Your task to perform on an android device: find photos in the google photos app Image 0: 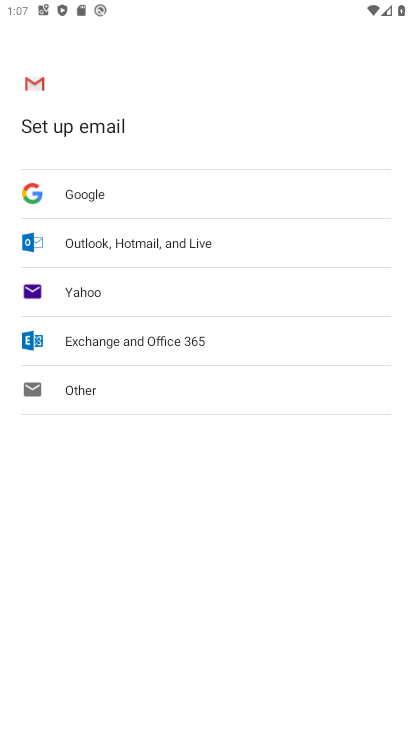
Step 0: press home button
Your task to perform on an android device: find photos in the google photos app Image 1: 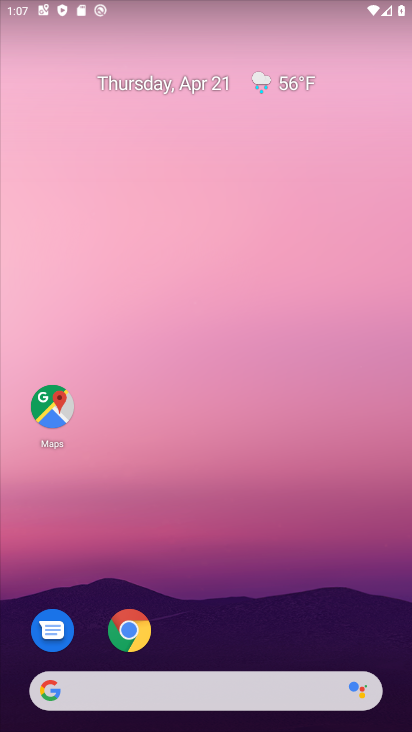
Step 1: drag from (299, 543) to (237, 121)
Your task to perform on an android device: find photos in the google photos app Image 2: 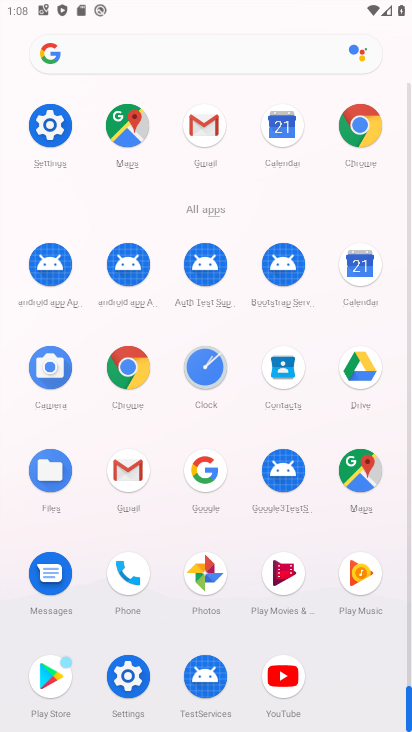
Step 2: click (200, 586)
Your task to perform on an android device: find photos in the google photos app Image 3: 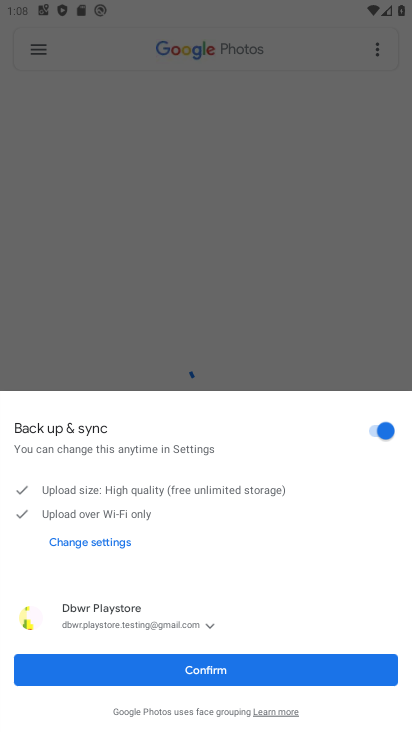
Step 3: click (167, 674)
Your task to perform on an android device: find photos in the google photos app Image 4: 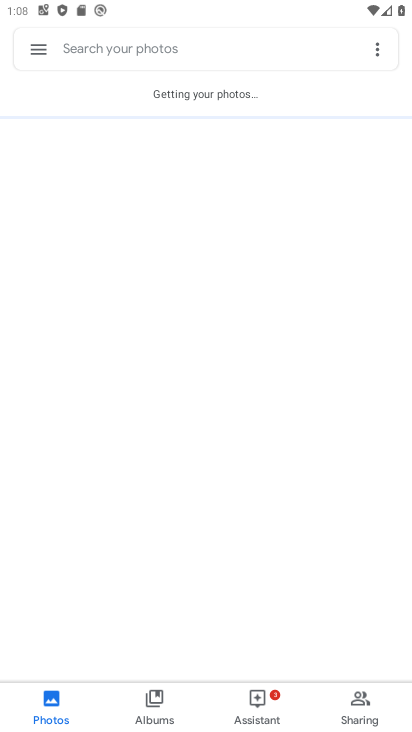
Step 4: click (60, 692)
Your task to perform on an android device: find photos in the google photos app Image 5: 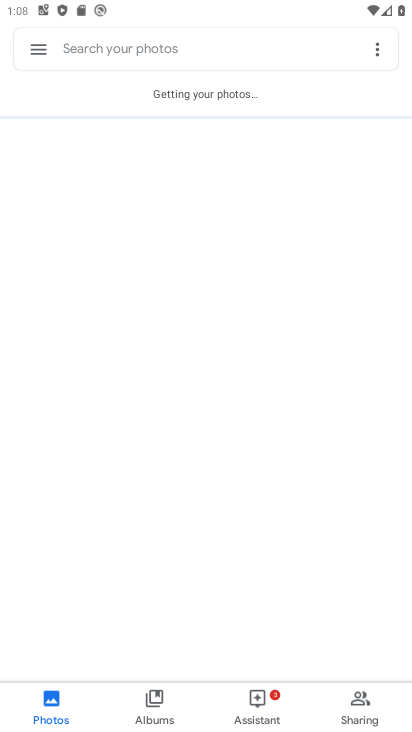
Step 5: task complete